Your task to perform on an android device: Open calendar and show me the second week of next month Image 0: 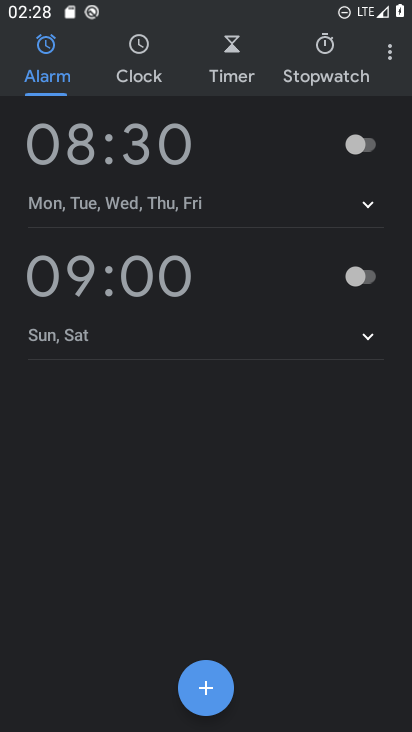
Step 0: press home button
Your task to perform on an android device: Open calendar and show me the second week of next month Image 1: 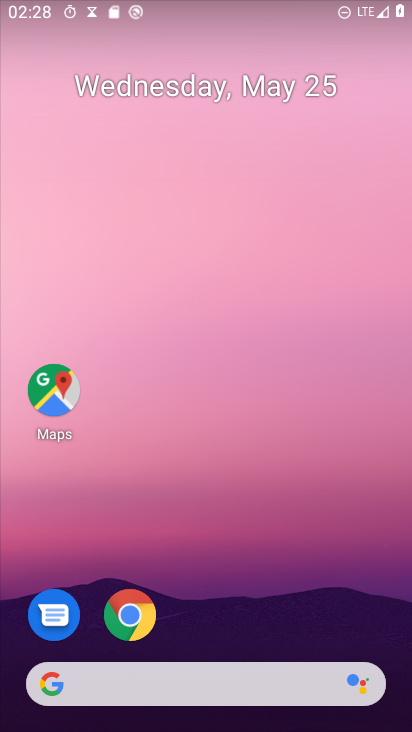
Step 1: drag from (287, 690) to (210, 274)
Your task to perform on an android device: Open calendar and show me the second week of next month Image 2: 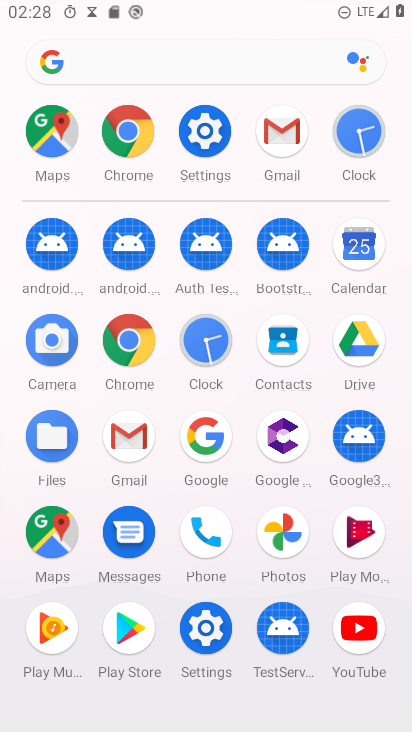
Step 2: click (350, 247)
Your task to perform on an android device: Open calendar and show me the second week of next month Image 3: 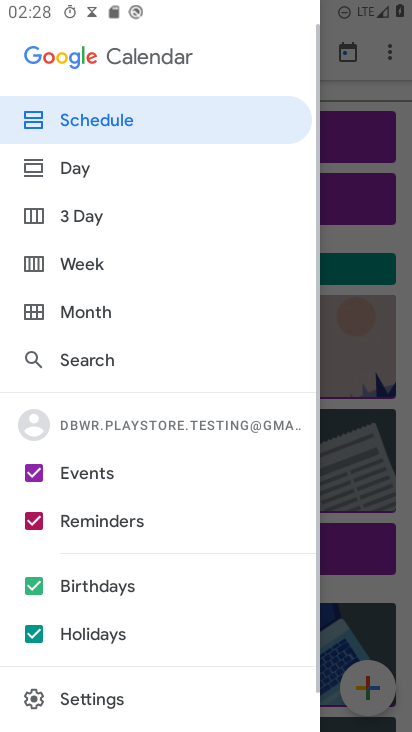
Step 3: click (119, 308)
Your task to perform on an android device: Open calendar and show me the second week of next month Image 4: 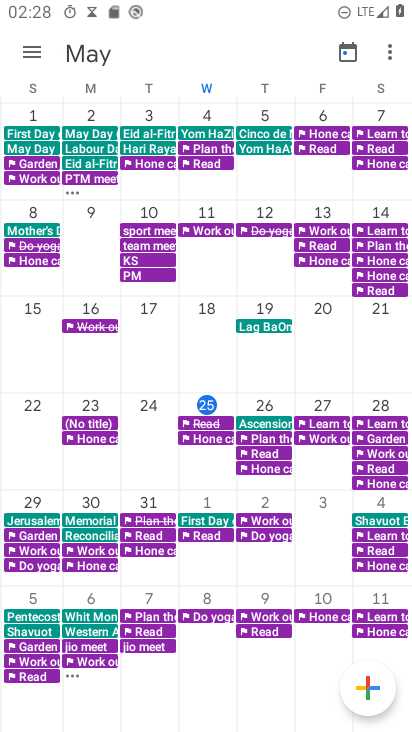
Step 4: drag from (359, 467) to (13, 383)
Your task to perform on an android device: Open calendar and show me the second week of next month Image 5: 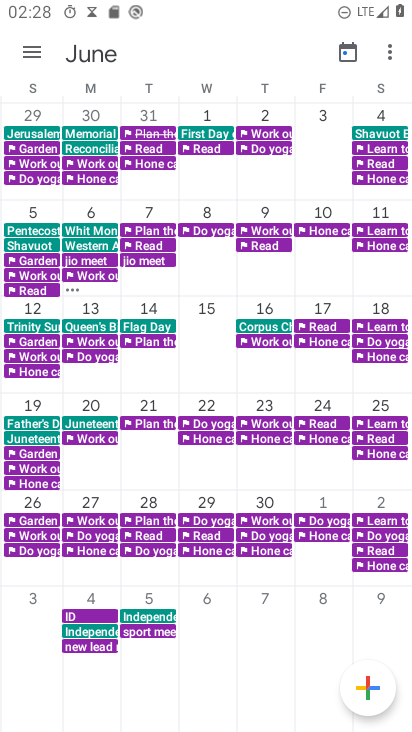
Step 5: click (90, 222)
Your task to perform on an android device: Open calendar and show me the second week of next month Image 6: 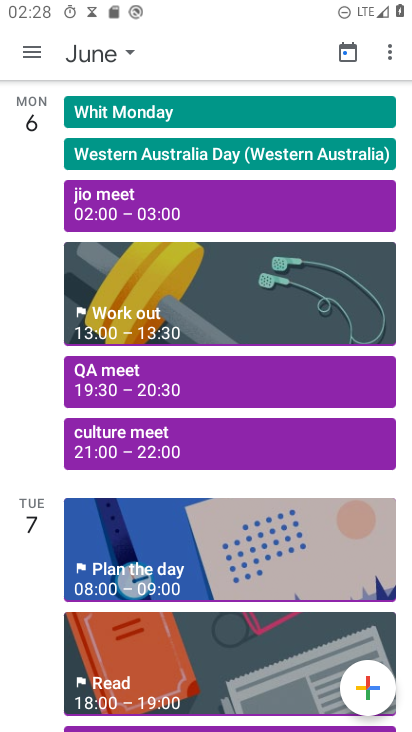
Step 6: task complete